Your task to perform on an android device: Open the phone app and click the voicemail tab. Image 0: 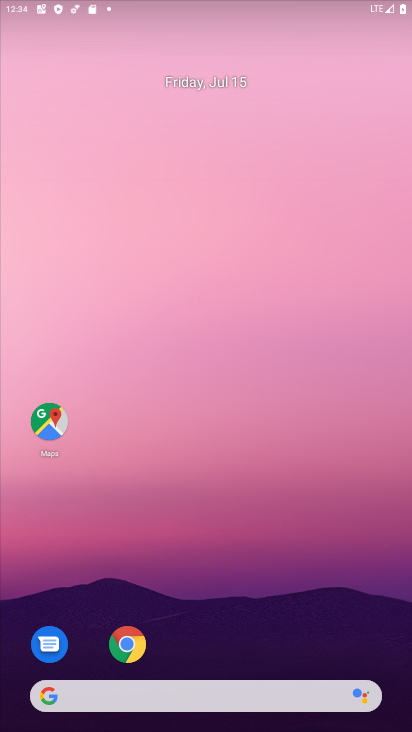
Step 0: drag from (79, 492) to (255, 109)
Your task to perform on an android device: Open the phone app and click the voicemail tab. Image 1: 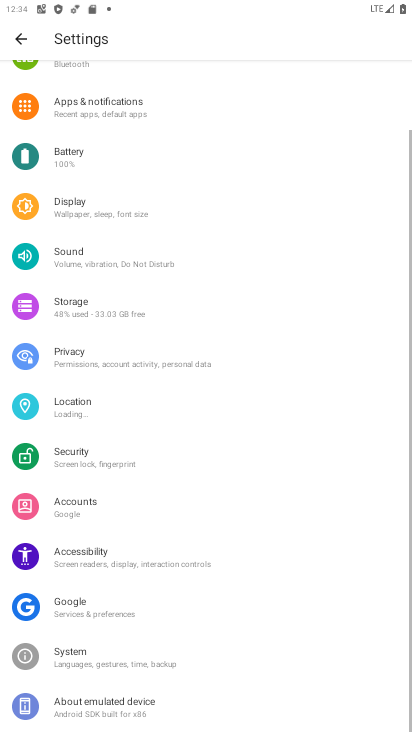
Step 1: press home button
Your task to perform on an android device: Open the phone app and click the voicemail tab. Image 2: 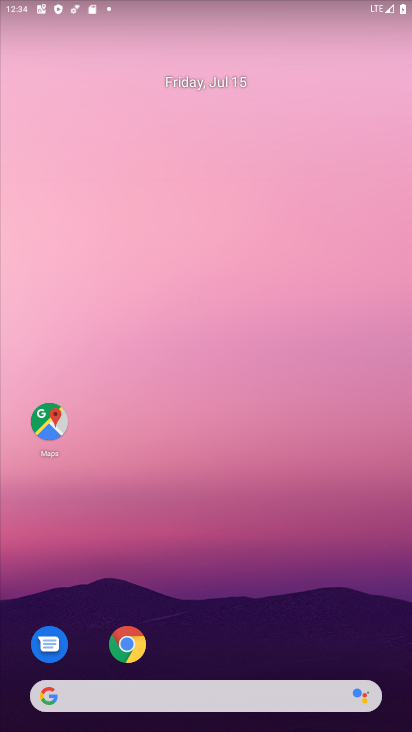
Step 2: drag from (22, 606) to (273, 78)
Your task to perform on an android device: Open the phone app and click the voicemail tab. Image 3: 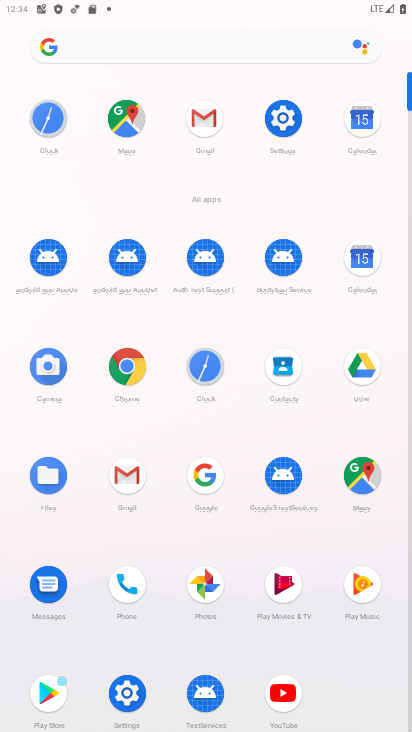
Step 3: click (128, 592)
Your task to perform on an android device: Open the phone app and click the voicemail tab. Image 4: 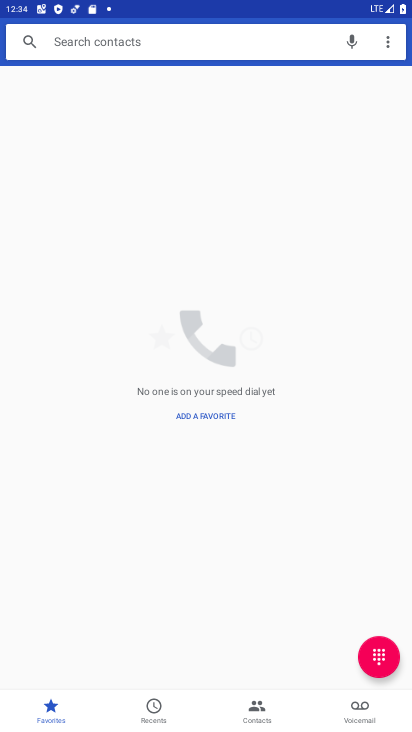
Step 4: click (358, 708)
Your task to perform on an android device: Open the phone app and click the voicemail tab. Image 5: 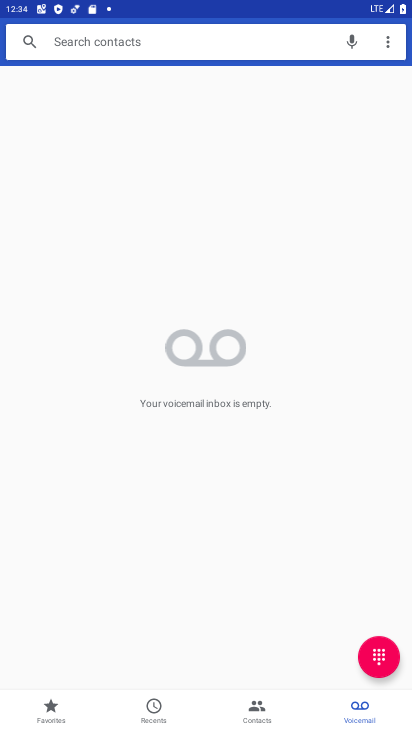
Step 5: task complete